Your task to perform on an android device: delete a single message in the gmail app Image 0: 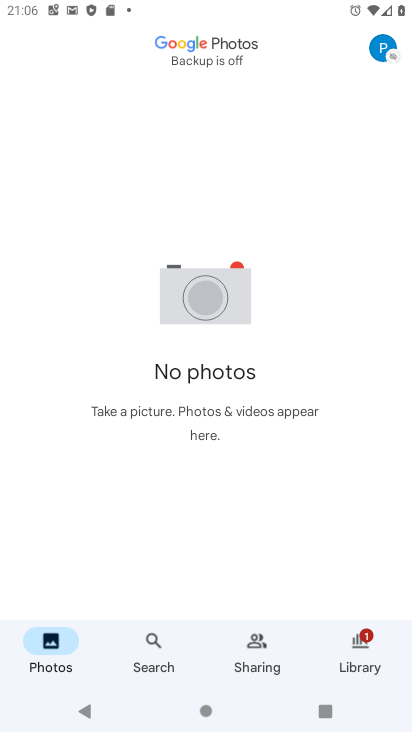
Step 0: press home button
Your task to perform on an android device: delete a single message in the gmail app Image 1: 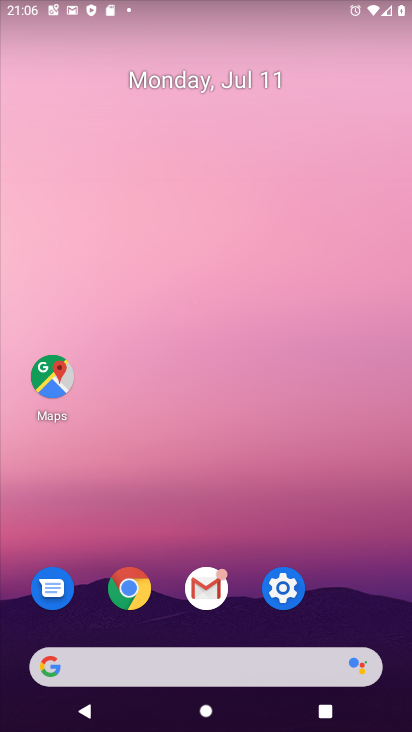
Step 1: click (201, 614)
Your task to perform on an android device: delete a single message in the gmail app Image 2: 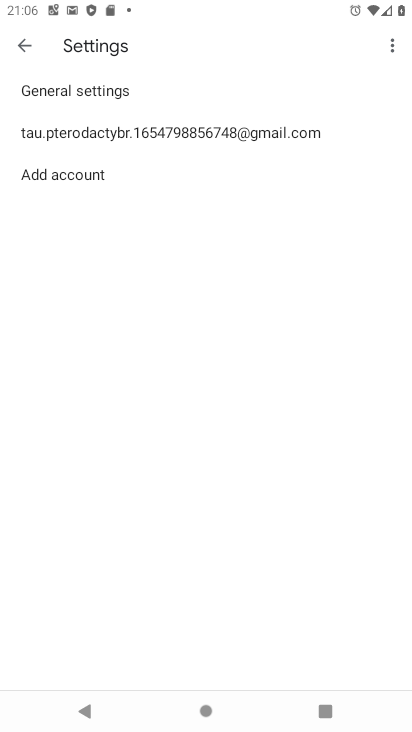
Step 2: click (24, 45)
Your task to perform on an android device: delete a single message in the gmail app Image 3: 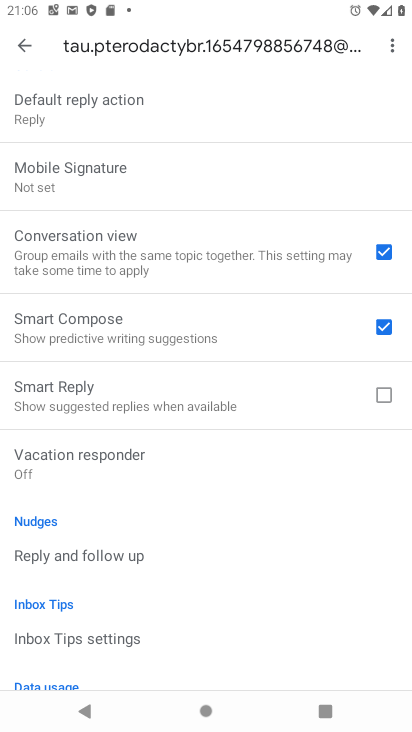
Step 3: click (22, 48)
Your task to perform on an android device: delete a single message in the gmail app Image 4: 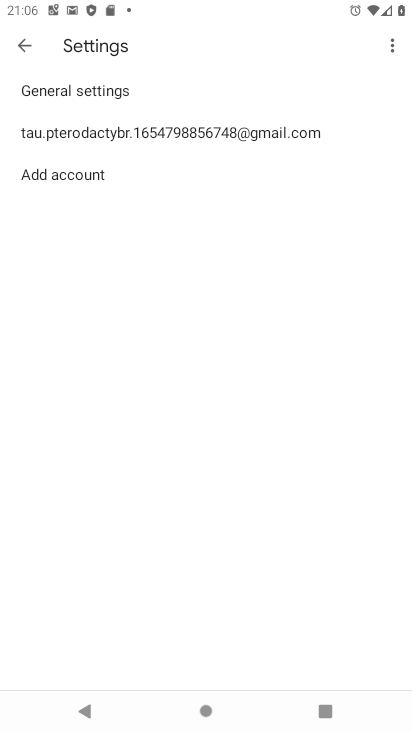
Step 4: click (21, 47)
Your task to perform on an android device: delete a single message in the gmail app Image 5: 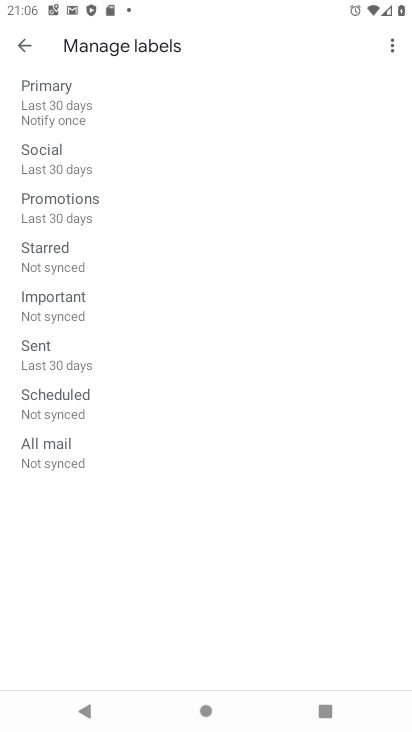
Step 5: click (17, 51)
Your task to perform on an android device: delete a single message in the gmail app Image 6: 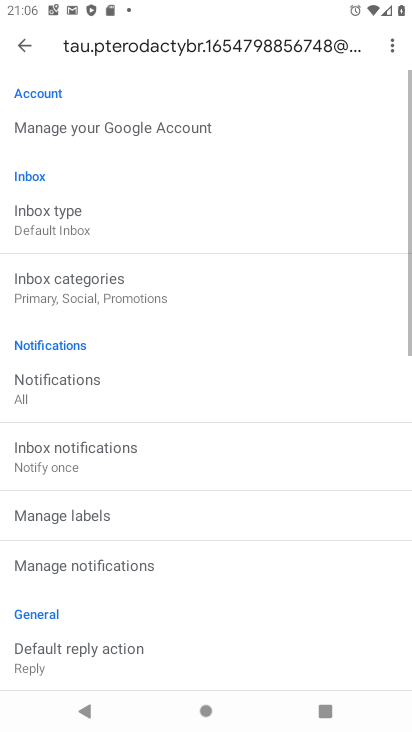
Step 6: click (18, 45)
Your task to perform on an android device: delete a single message in the gmail app Image 7: 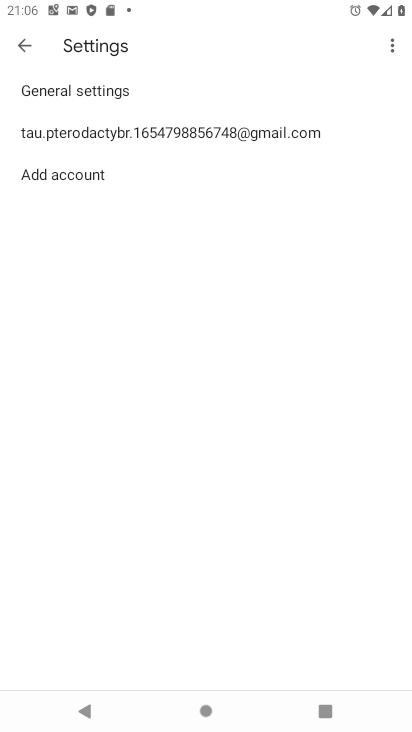
Step 7: click (18, 45)
Your task to perform on an android device: delete a single message in the gmail app Image 8: 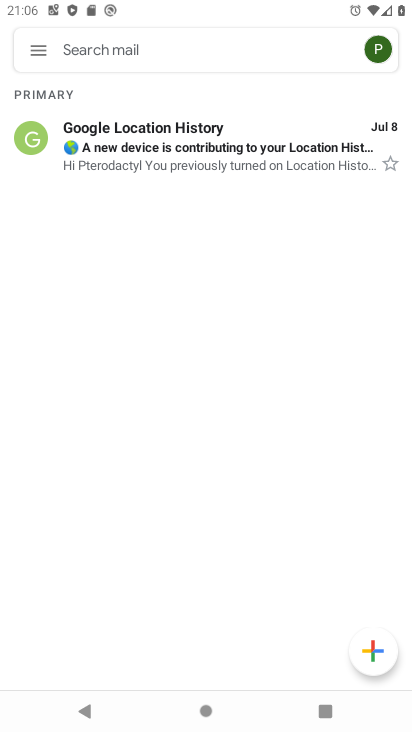
Step 8: click (215, 141)
Your task to perform on an android device: delete a single message in the gmail app Image 9: 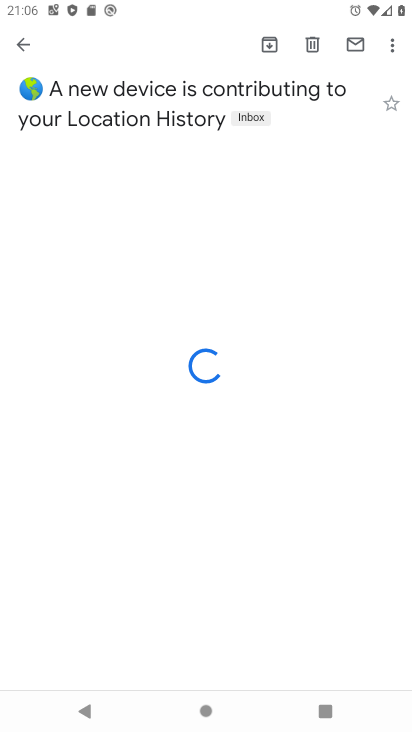
Step 9: click (309, 42)
Your task to perform on an android device: delete a single message in the gmail app Image 10: 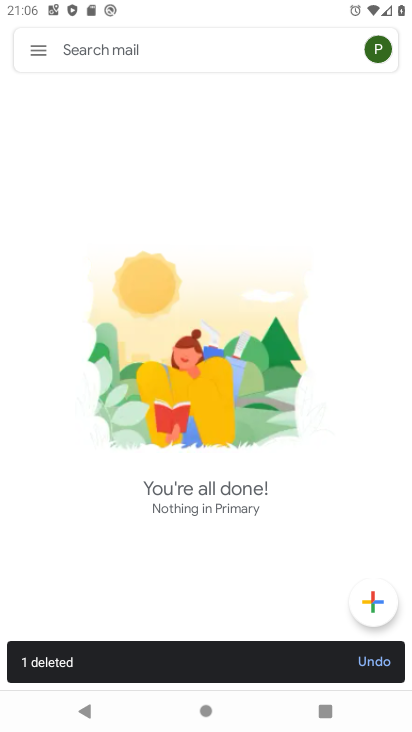
Step 10: task complete